Your task to perform on an android device: find photos in the google photos app Image 0: 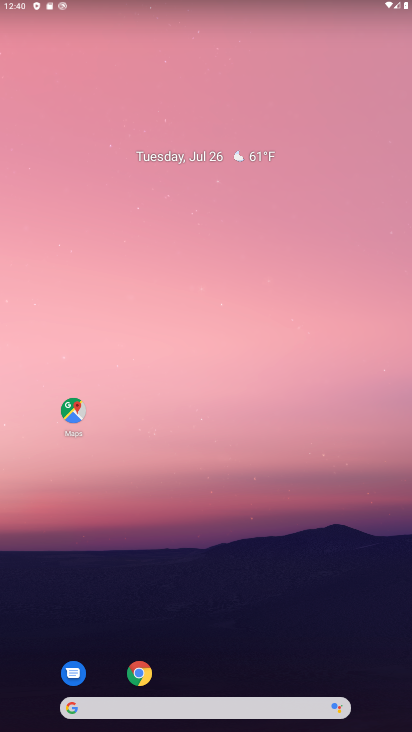
Step 0: drag from (169, 670) to (229, 221)
Your task to perform on an android device: find photos in the google photos app Image 1: 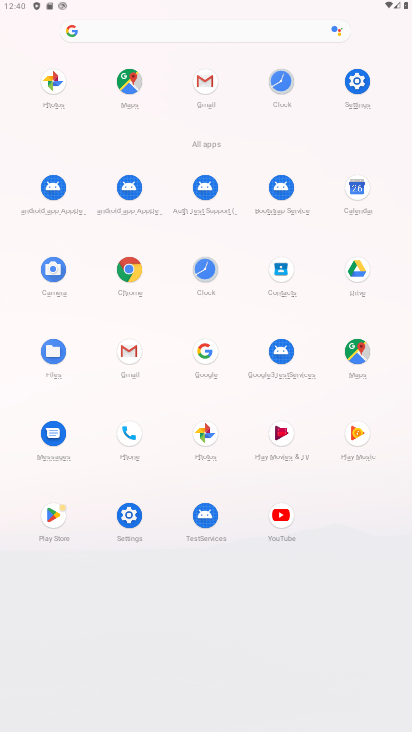
Step 1: click (205, 431)
Your task to perform on an android device: find photos in the google photos app Image 2: 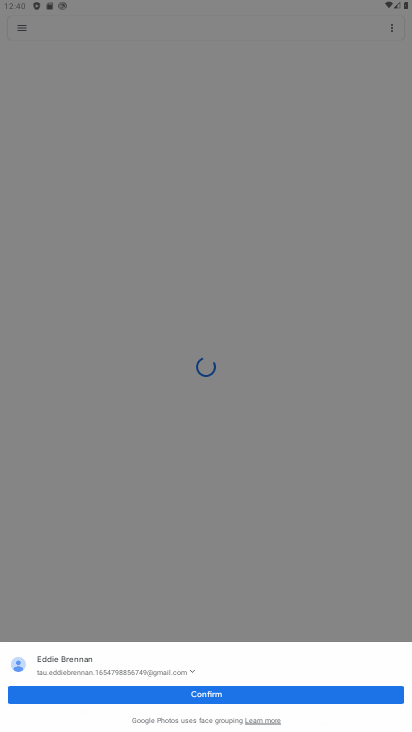
Step 2: drag from (228, 603) to (262, 364)
Your task to perform on an android device: find photos in the google photos app Image 3: 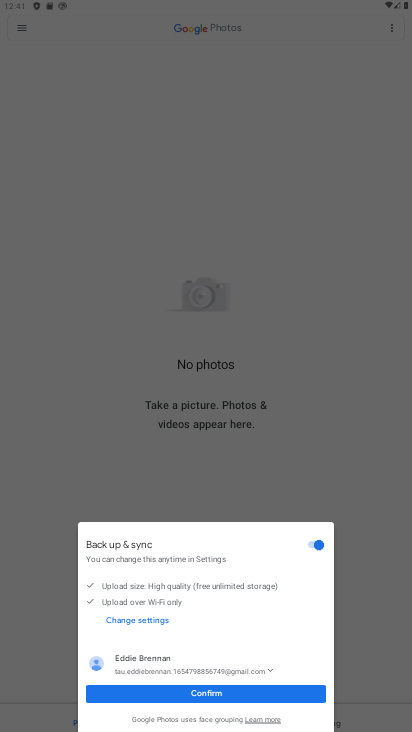
Step 3: click (195, 696)
Your task to perform on an android device: find photos in the google photos app Image 4: 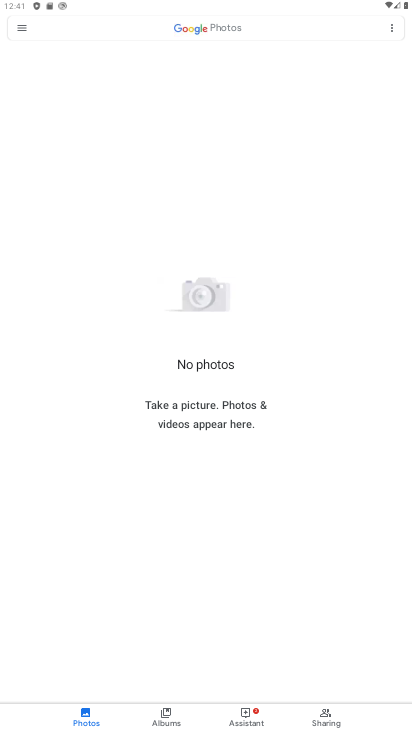
Step 4: task complete